Your task to perform on an android device: Open CNN.com Image 0: 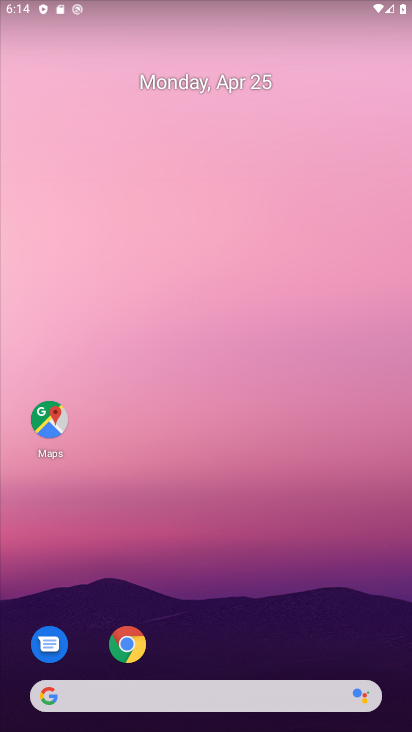
Step 0: drag from (250, 543) to (265, 212)
Your task to perform on an android device: Open CNN.com Image 1: 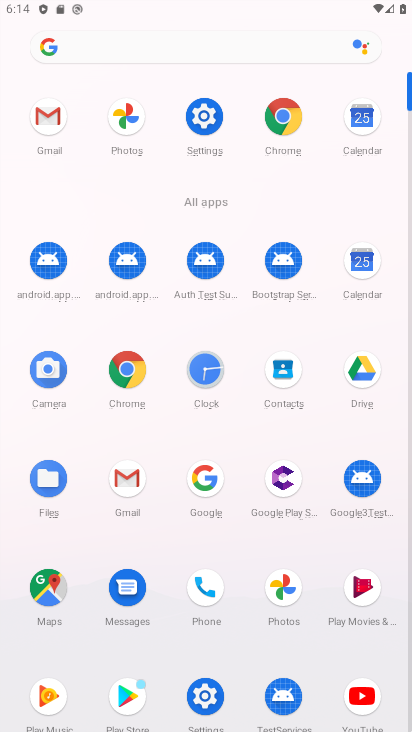
Step 1: click (287, 117)
Your task to perform on an android device: Open CNN.com Image 2: 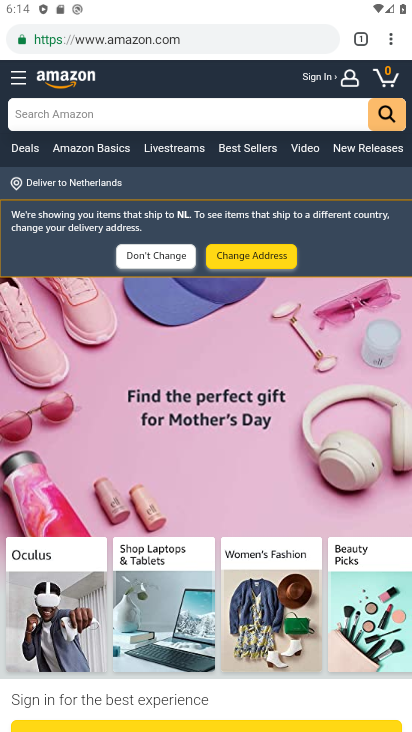
Step 2: click (357, 38)
Your task to perform on an android device: Open CNN.com Image 3: 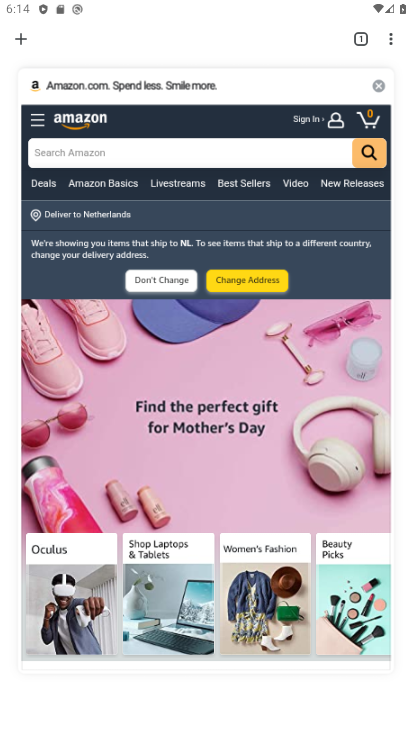
Step 3: click (21, 39)
Your task to perform on an android device: Open CNN.com Image 4: 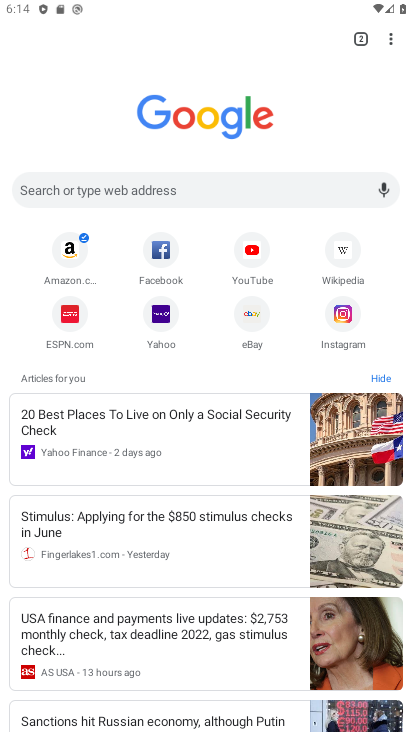
Step 4: click (243, 190)
Your task to perform on an android device: Open CNN.com Image 5: 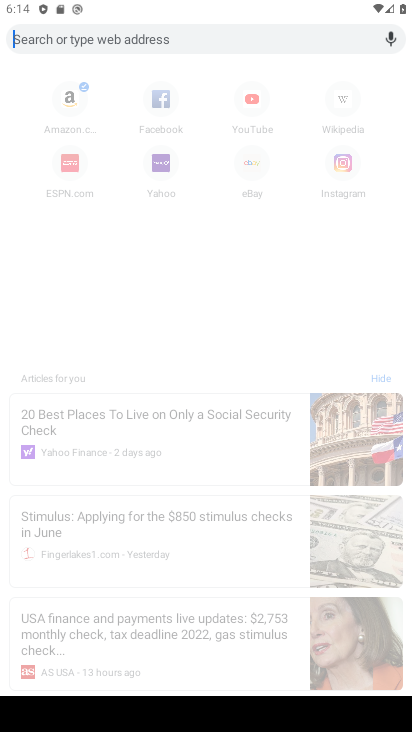
Step 5: type "CNN.com"
Your task to perform on an android device: Open CNN.com Image 6: 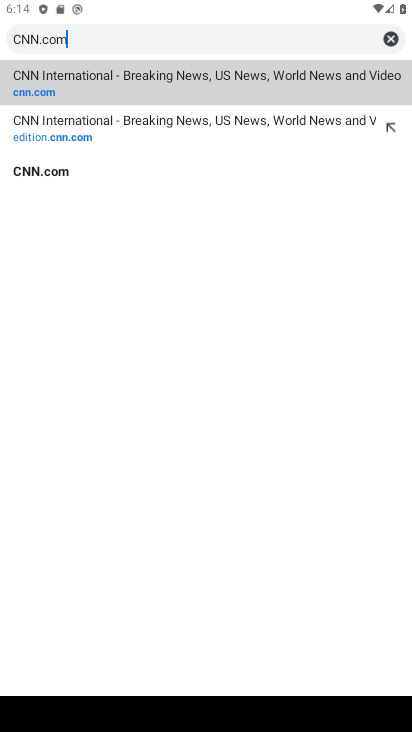
Step 6: click (112, 88)
Your task to perform on an android device: Open CNN.com Image 7: 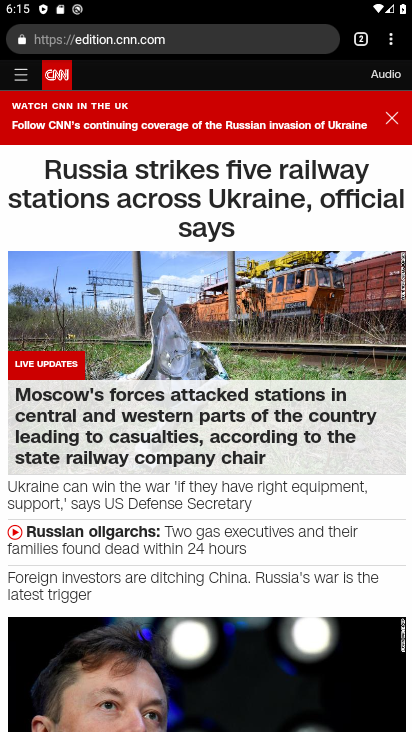
Step 7: task complete